Your task to perform on an android device: Go to Yahoo.com Image 0: 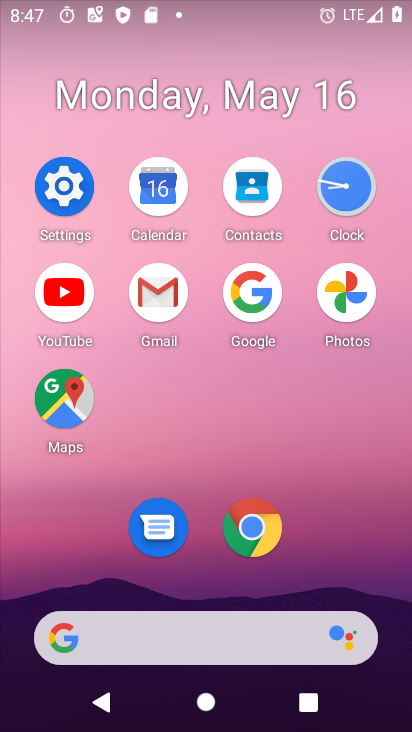
Step 0: click (270, 535)
Your task to perform on an android device: Go to Yahoo.com Image 1: 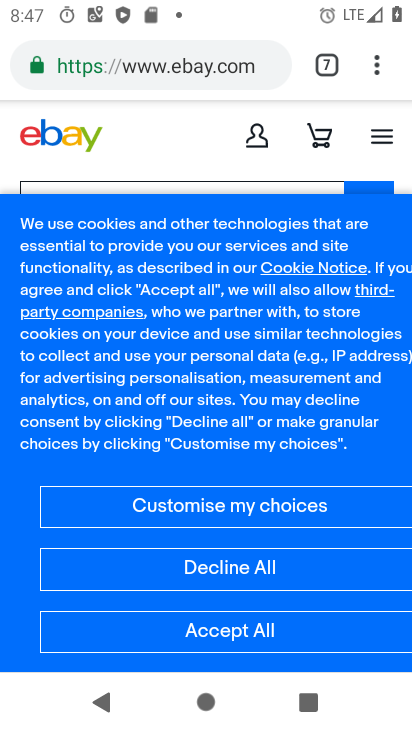
Step 1: click (319, 71)
Your task to perform on an android device: Go to Yahoo.com Image 2: 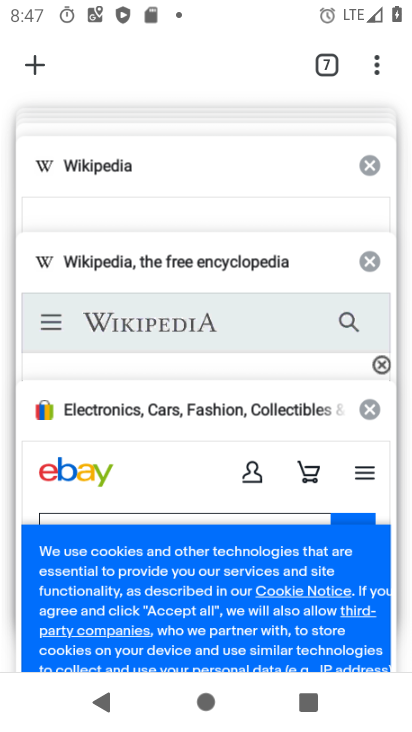
Step 2: click (27, 69)
Your task to perform on an android device: Go to Yahoo.com Image 3: 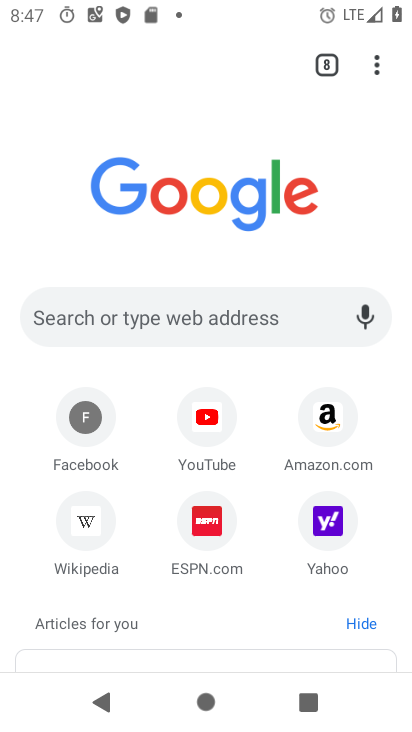
Step 3: click (323, 528)
Your task to perform on an android device: Go to Yahoo.com Image 4: 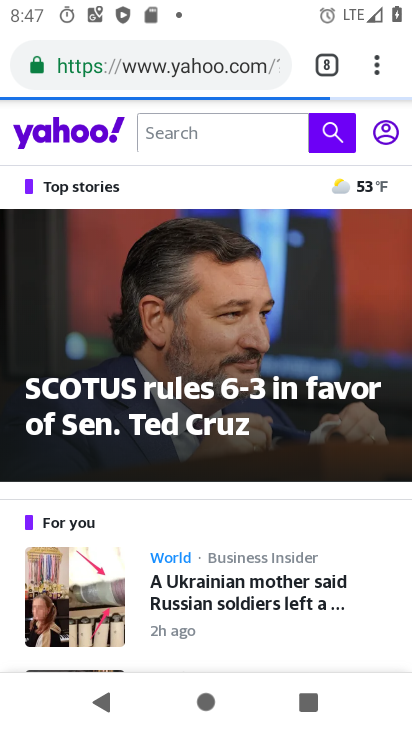
Step 4: task complete